Your task to perform on an android device: Add "logitech g pro" to the cart on amazon, then select checkout. Image 0: 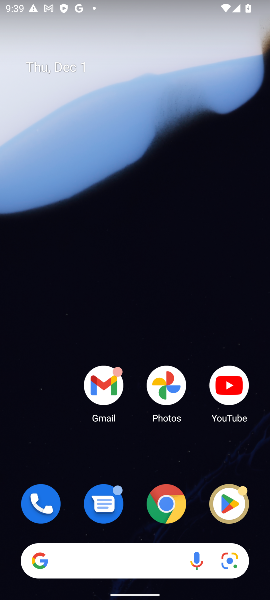
Step 0: click (161, 504)
Your task to perform on an android device: Add "logitech g pro" to the cart on amazon, then select checkout. Image 1: 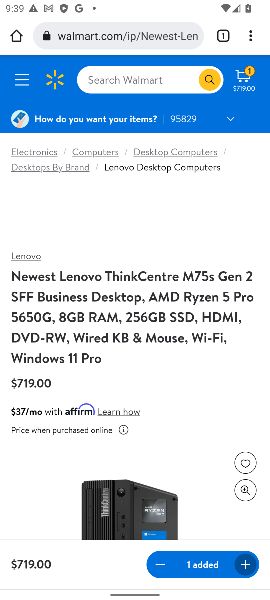
Step 1: click (125, 34)
Your task to perform on an android device: Add "logitech g pro" to the cart on amazon, then select checkout. Image 2: 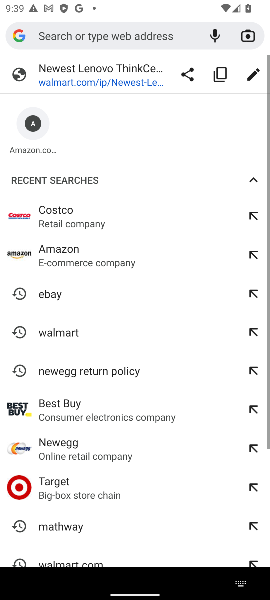
Step 2: click (67, 260)
Your task to perform on an android device: Add "logitech g pro" to the cart on amazon, then select checkout. Image 3: 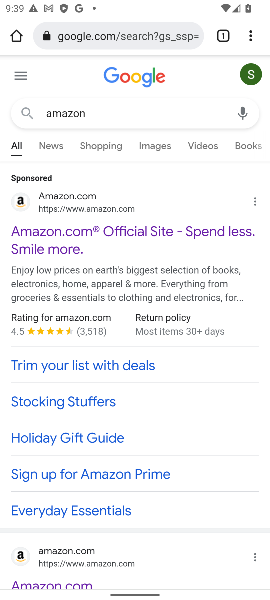
Step 3: click (81, 233)
Your task to perform on an android device: Add "logitech g pro" to the cart on amazon, then select checkout. Image 4: 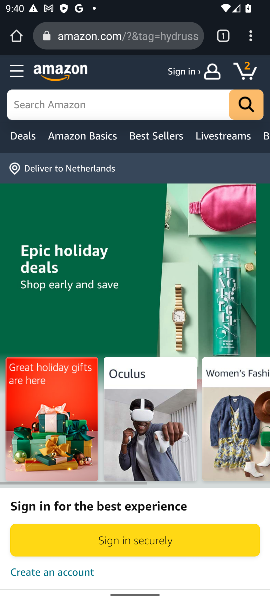
Step 4: click (133, 103)
Your task to perform on an android device: Add "logitech g pro" to the cart on amazon, then select checkout. Image 5: 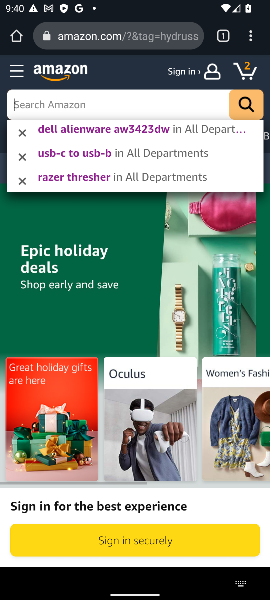
Step 5: type "logitech g pro"
Your task to perform on an android device: Add "logitech g pro" to the cart on amazon, then select checkout. Image 6: 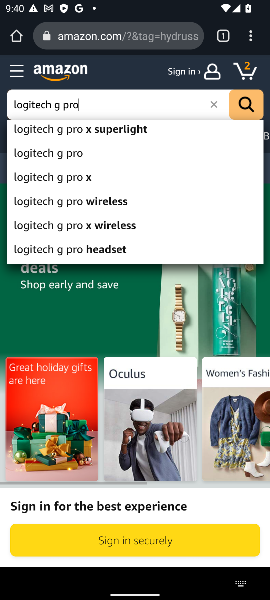
Step 6: click (114, 127)
Your task to perform on an android device: Add "logitech g pro" to the cart on amazon, then select checkout. Image 7: 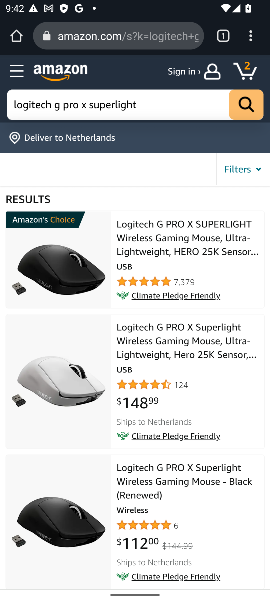
Step 7: click (65, 267)
Your task to perform on an android device: Add "logitech g pro" to the cart on amazon, then select checkout. Image 8: 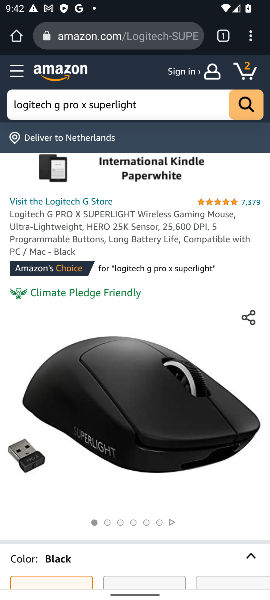
Step 8: drag from (163, 469) to (137, 170)
Your task to perform on an android device: Add "logitech g pro" to the cart on amazon, then select checkout. Image 9: 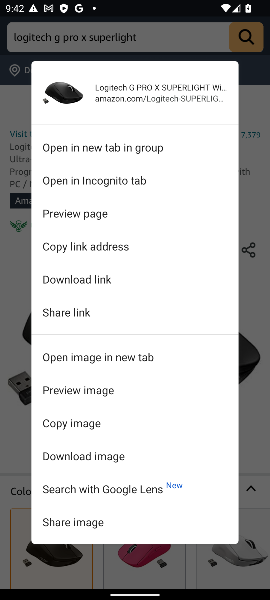
Step 9: click (16, 417)
Your task to perform on an android device: Add "logitech g pro" to the cart on amazon, then select checkout. Image 10: 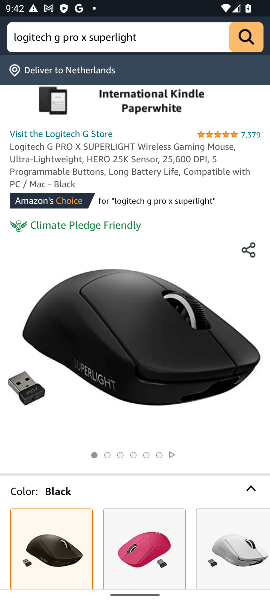
Step 10: drag from (144, 509) to (111, 126)
Your task to perform on an android device: Add "logitech g pro" to the cart on amazon, then select checkout. Image 11: 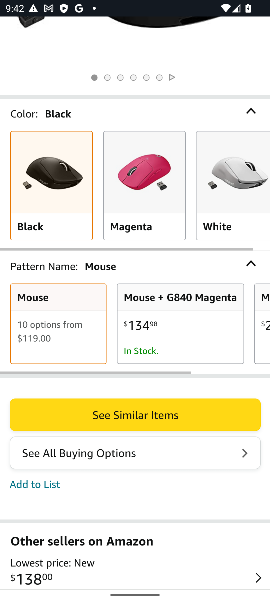
Step 11: click (44, 484)
Your task to perform on an android device: Add "logitech g pro" to the cart on amazon, then select checkout. Image 12: 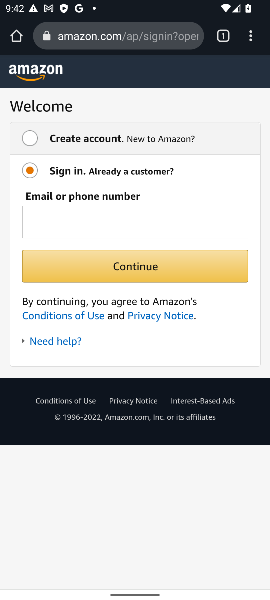
Step 12: task complete